Your task to perform on an android device: see sites visited before in the chrome app Image 0: 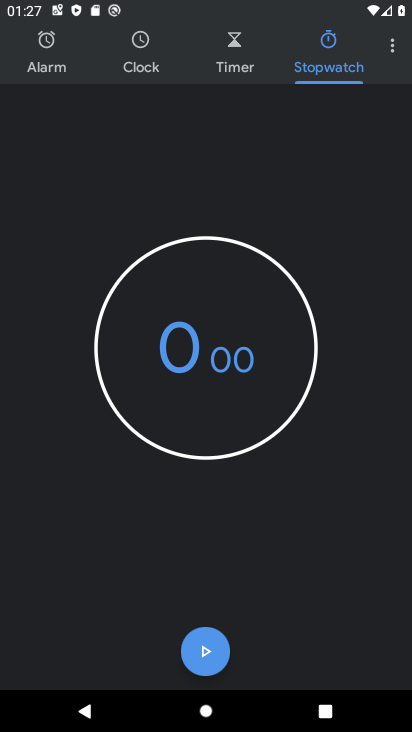
Step 0: click (390, 51)
Your task to perform on an android device: see sites visited before in the chrome app Image 1: 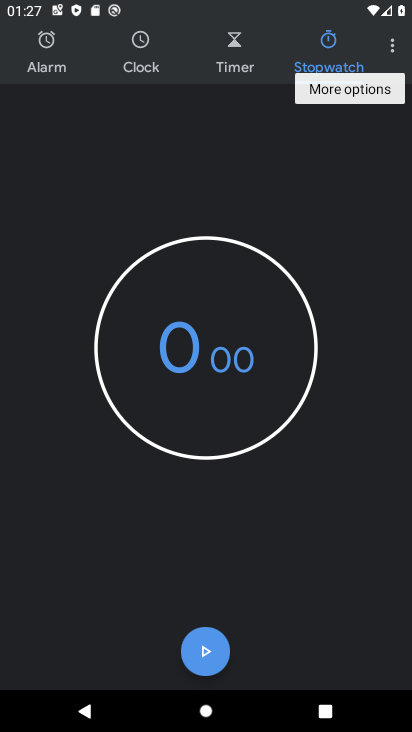
Step 1: click (390, 51)
Your task to perform on an android device: see sites visited before in the chrome app Image 2: 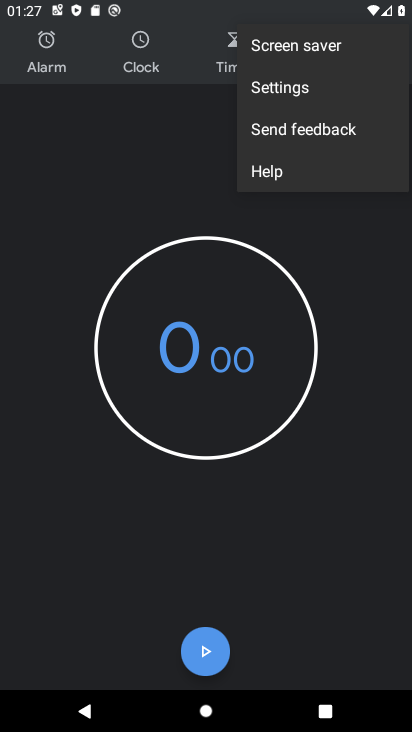
Step 2: press back button
Your task to perform on an android device: see sites visited before in the chrome app Image 3: 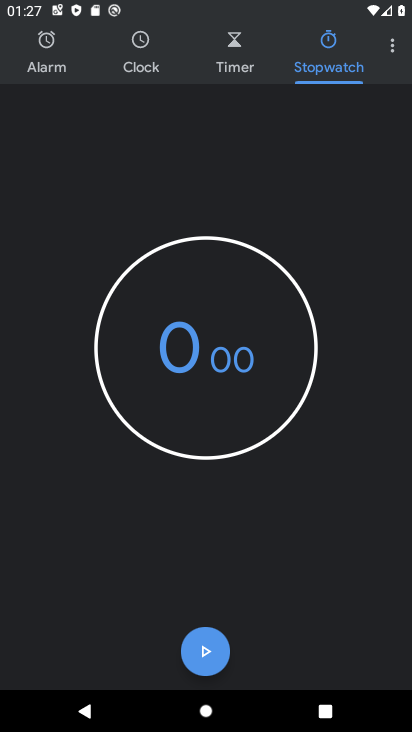
Step 3: press back button
Your task to perform on an android device: see sites visited before in the chrome app Image 4: 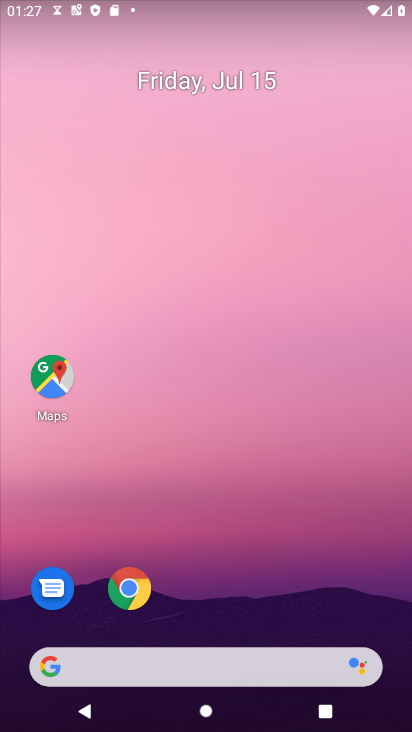
Step 4: click (134, 592)
Your task to perform on an android device: see sites visited before in the chrome app Image 5: 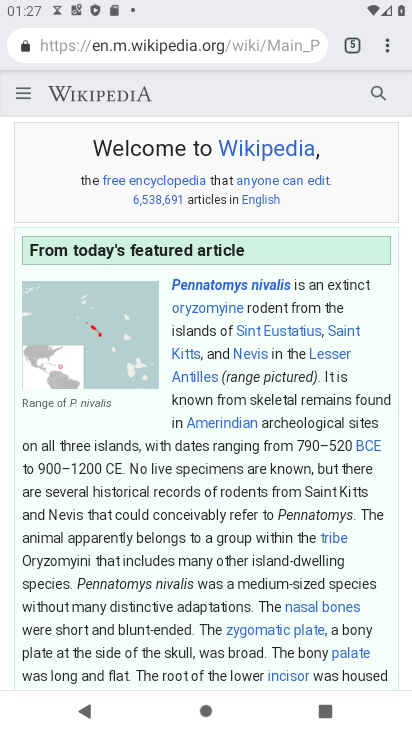
Step 5: click (388, 37)
Your task to perform on an android device: see sites visited before in the chrome app Image 6: 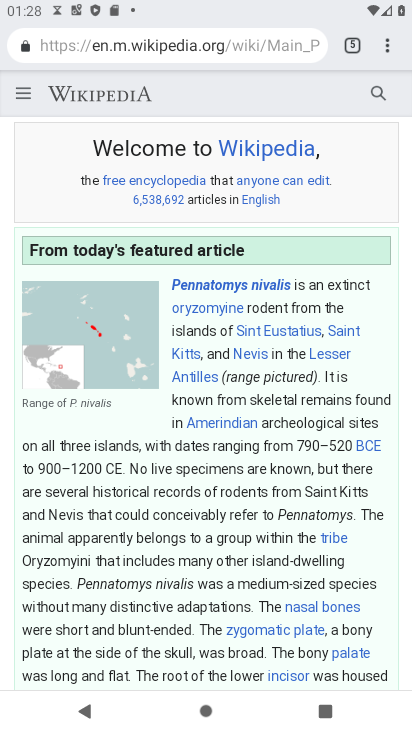
Step 6: task complete